Your task to perform on an android device: toggle pop-ups in chrome Image 0: 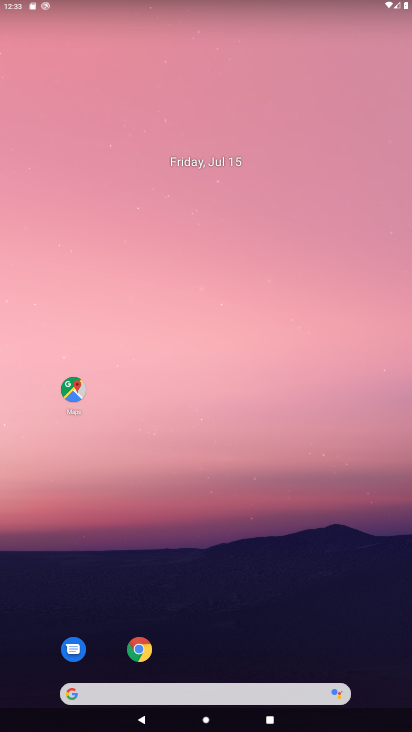
Step 0: drag from (291, 717) to (209, 182)
Your task to perform on an android device: toggle pop-ups in chrome Image 1: 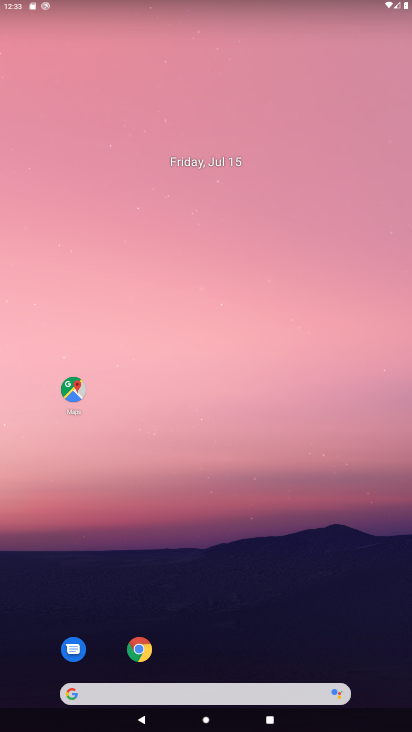
Step 1: click (148, 201)
Your task to perform on an android device: toggle pop-ups in chrome Image 2: 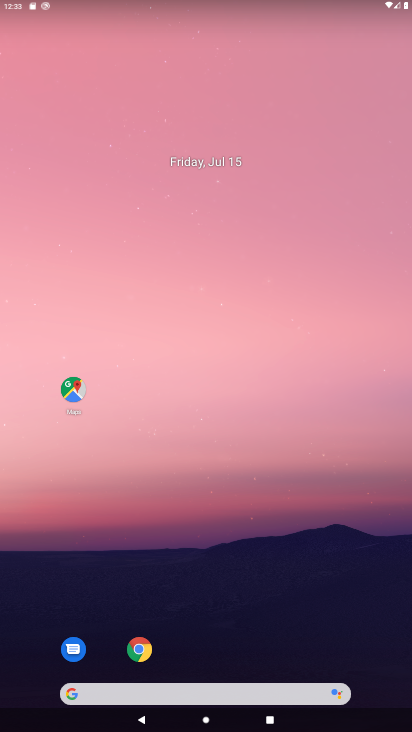
Step 2: drag from (273, 529) to (118, 2)
Your task to perform on an android device: toggle pop-ups in chrome Image 3: 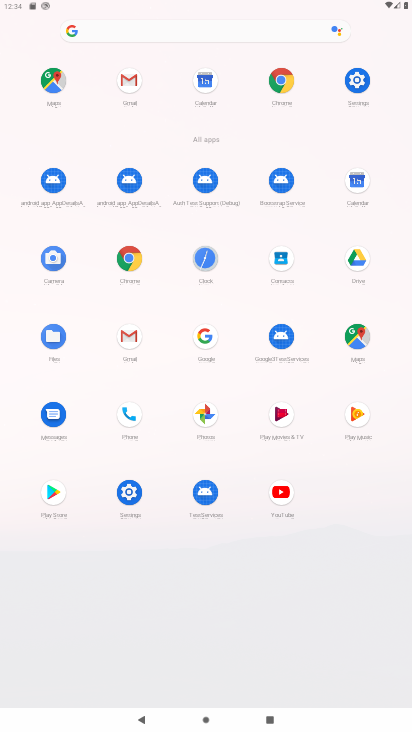
Step 3: click (277, 77)
Your task to perform on an android device: toggle pop-ups in chrome Image 4: 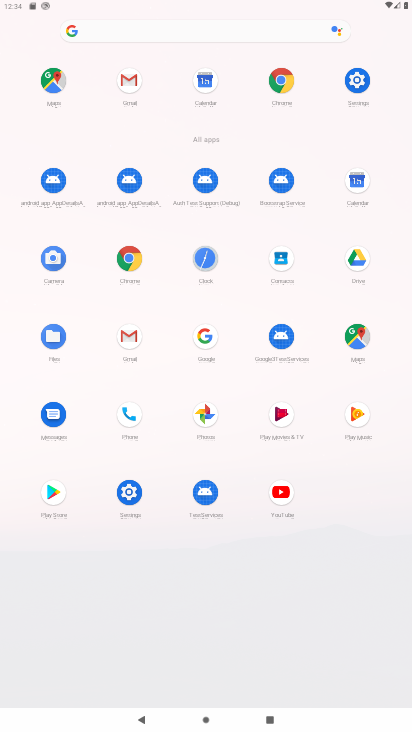
Step 4: click (277, 77)
Your task to perform on an android device: toggle pop-ups in chrome Image 5: 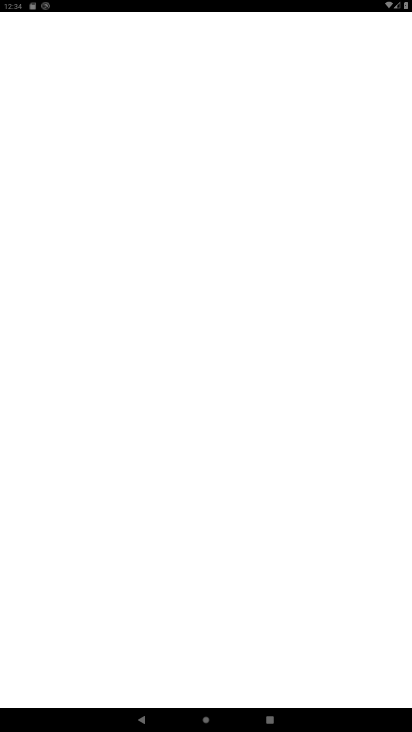
Step 5: click (277, 79)
Your task to perform on an android device: toggle pop-ups in chrome Image 6: 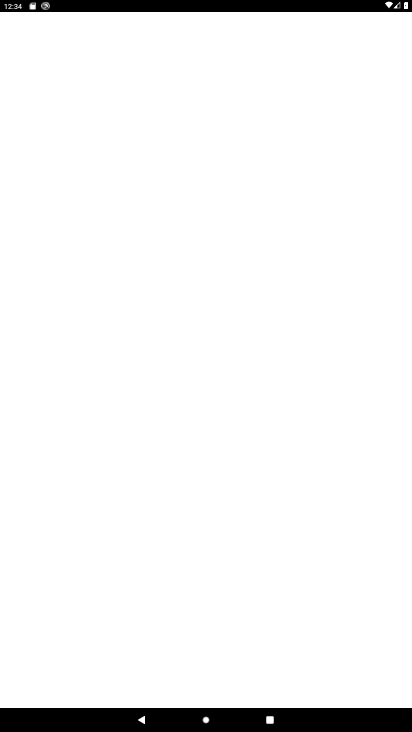
Step 6: click (278, 83)
Your task to perform on an android device: toggle pop-ups in chrome Image 7: 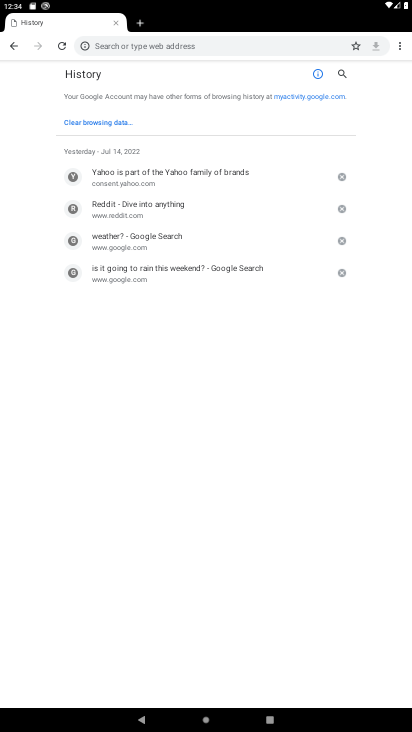
Step 7: drag from (399, 50) to (304, 216)
Your task to perform on an android device: toggle pop-ups in chrome Image 8: 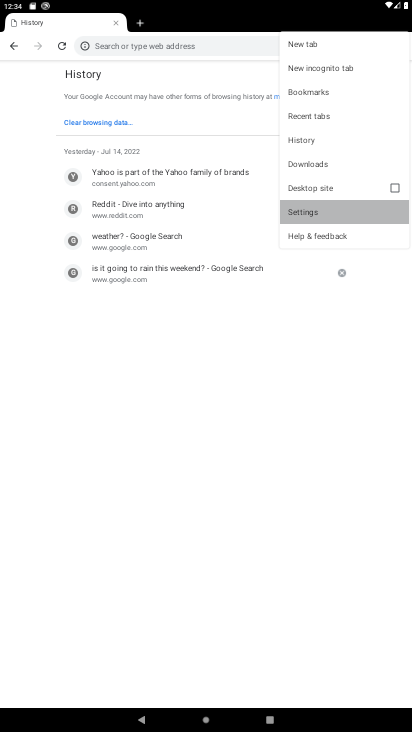
Step 8: click (305, 216)
Your task to perform on an android device: toggle pop-ups in chrome Image 9: 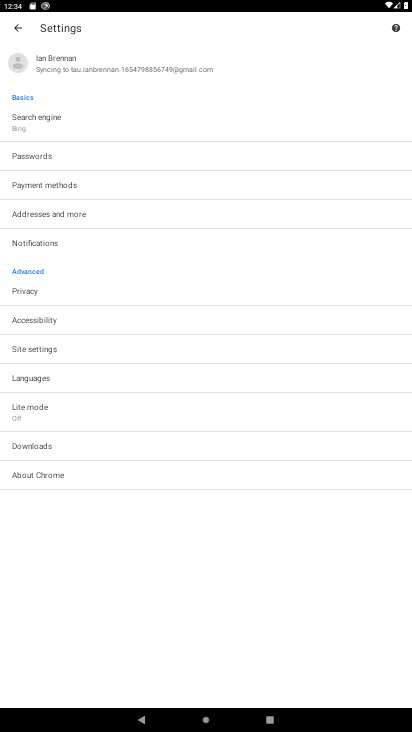
Step 9: click (21, 341)
Your task to perform on an android device: toggle pop-ups in chrome Image 10: 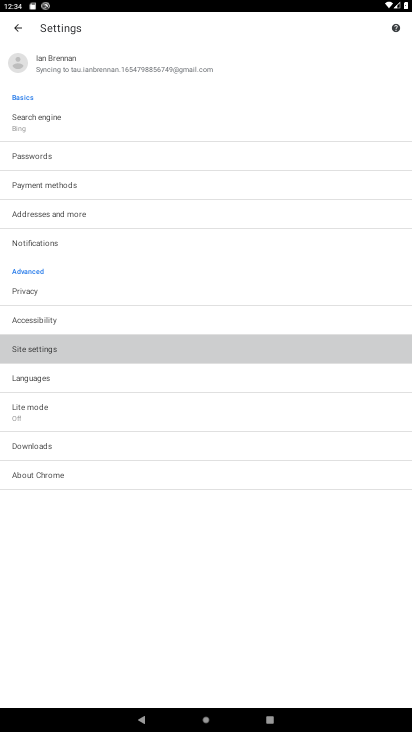
Step 10: click (28, 347)
Your task to perform on an android device: toggle pop-ups in chrome Image 11: 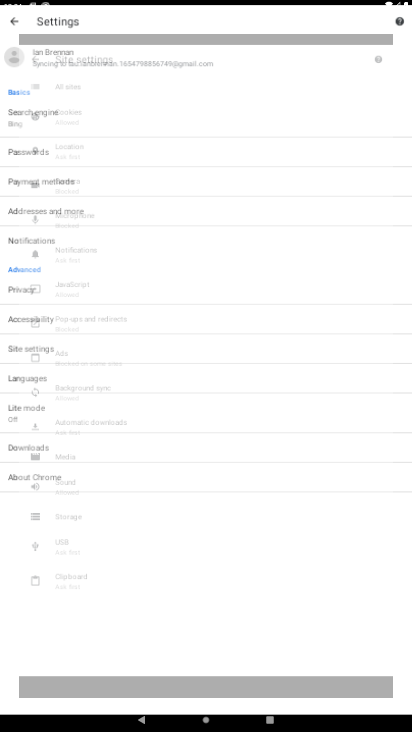
Step 11: click (30, 353)
Your task to perform on an android device: toggle pop-ups in chrome Image 12: 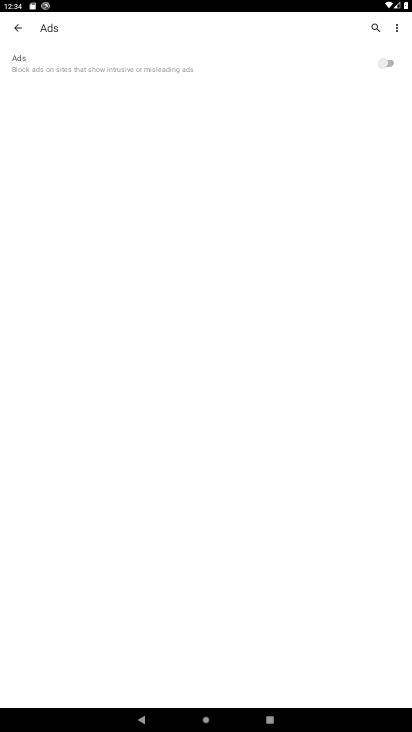
Step 12: click (12, 23)
Your task to perform on an android device: toggle pop-ups in chrome Image 13: 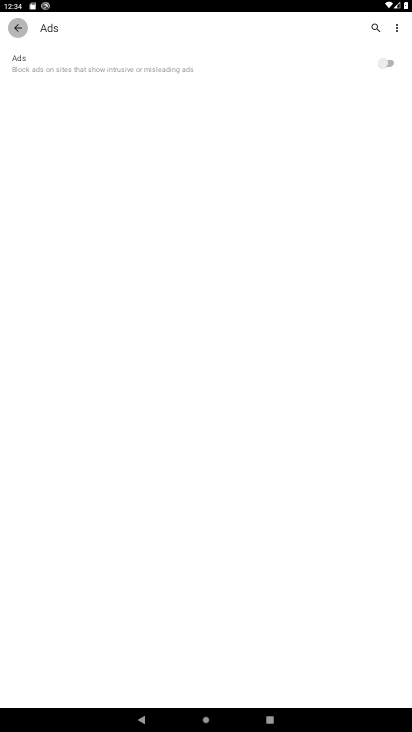
Step 13: click (13, 23)
Your task to perform on an android device: toggle pop-ups in chrome Image 14: 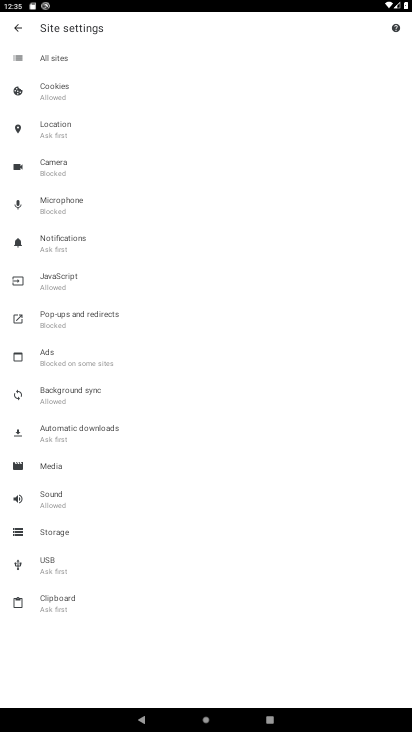
Step 14: click (74, 331)
Your task to perform on an android device: toggle pop-ups in chrome Image 15: 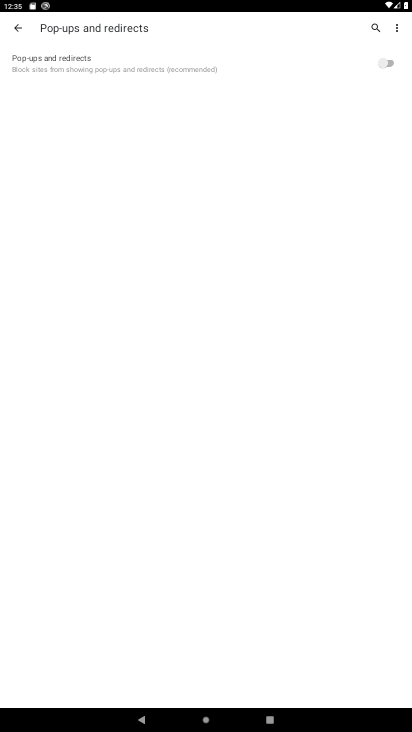
Step 15: click (59, 326)
Your task to perform on an android device: toggle pop-ups in chrome Image 16: 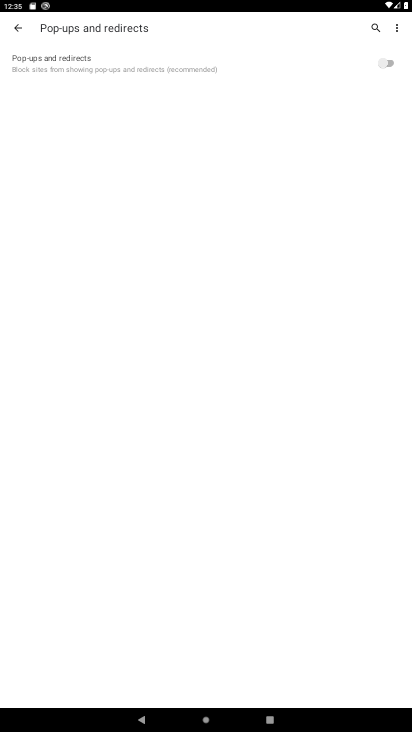
Step 16: task complete